Your task to perform on an android device: check storage Image 0: 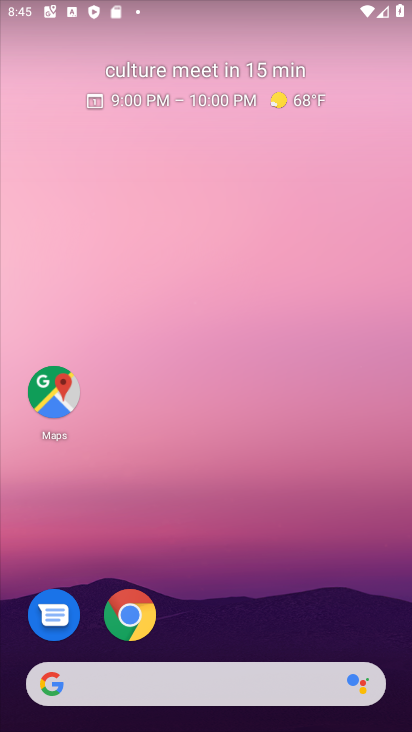
Step 0: drag from (406, 692) to (358, 66)
Your task to perform on an android device: check storage Image 1: 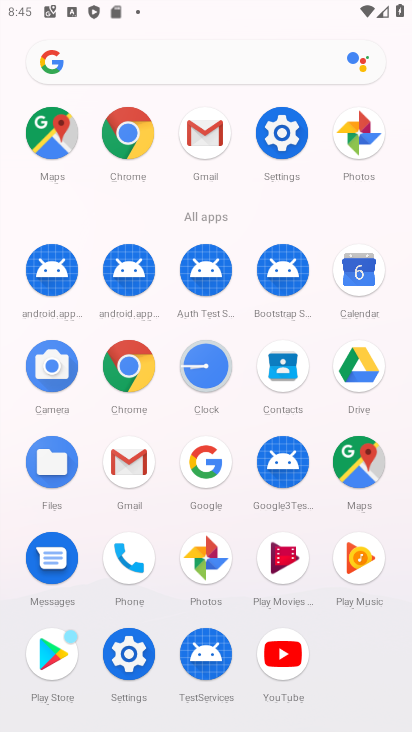
Step 1: click (279, 128)
Your task to perform on an android device: check storage Image 2: 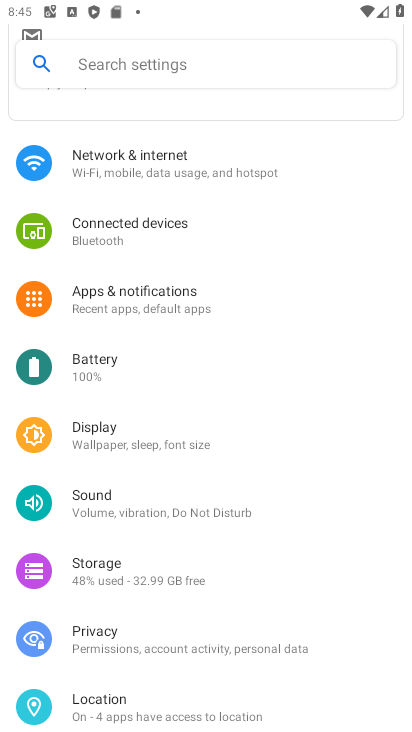
Step 2: click (85, 556)
Your task to perform on an android device: check storage Image 3: 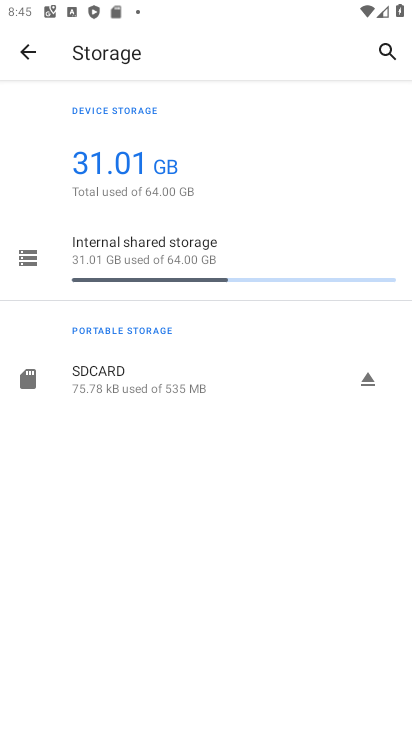
Step 3: task complete